Your task to perform on an android device: Go to Android settings Image 0: 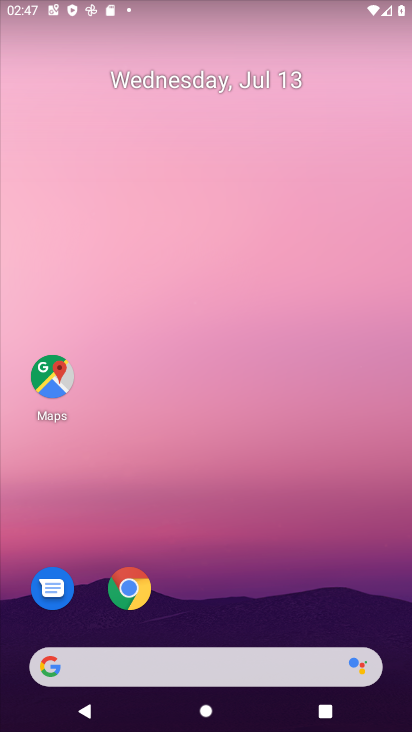
Step 0: drag from (385, 709) to (307, 180)
Your task to perform on an android device: Go to Android settings Image 1: 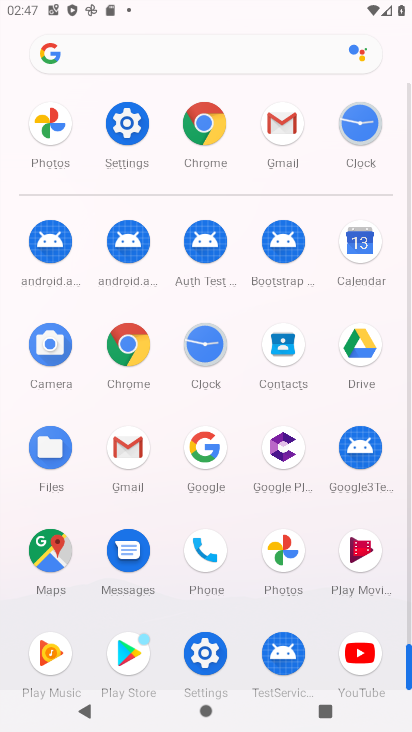
Step 1: click (212, 647)
Your task to perform on an android device: Go to Android settings Image 2: 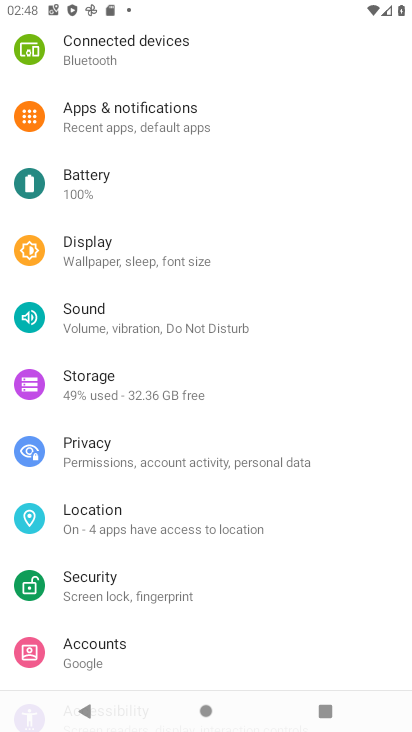
Step 2: task complete